Your task to perform on an android device: change the clock display to show seconds Image 0: 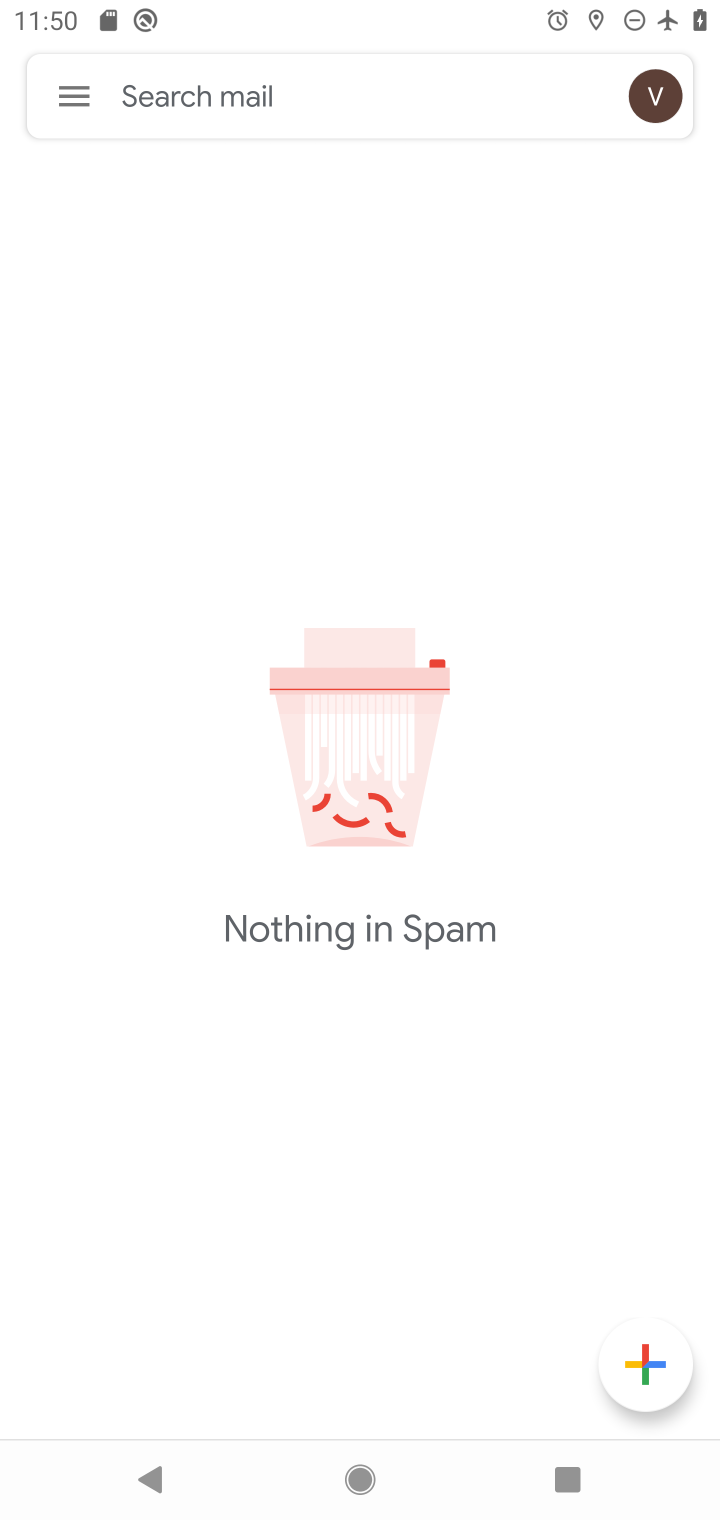
Step 0: press home button
Your task to perform on an android device: change the clock display to show seconds Image 1: 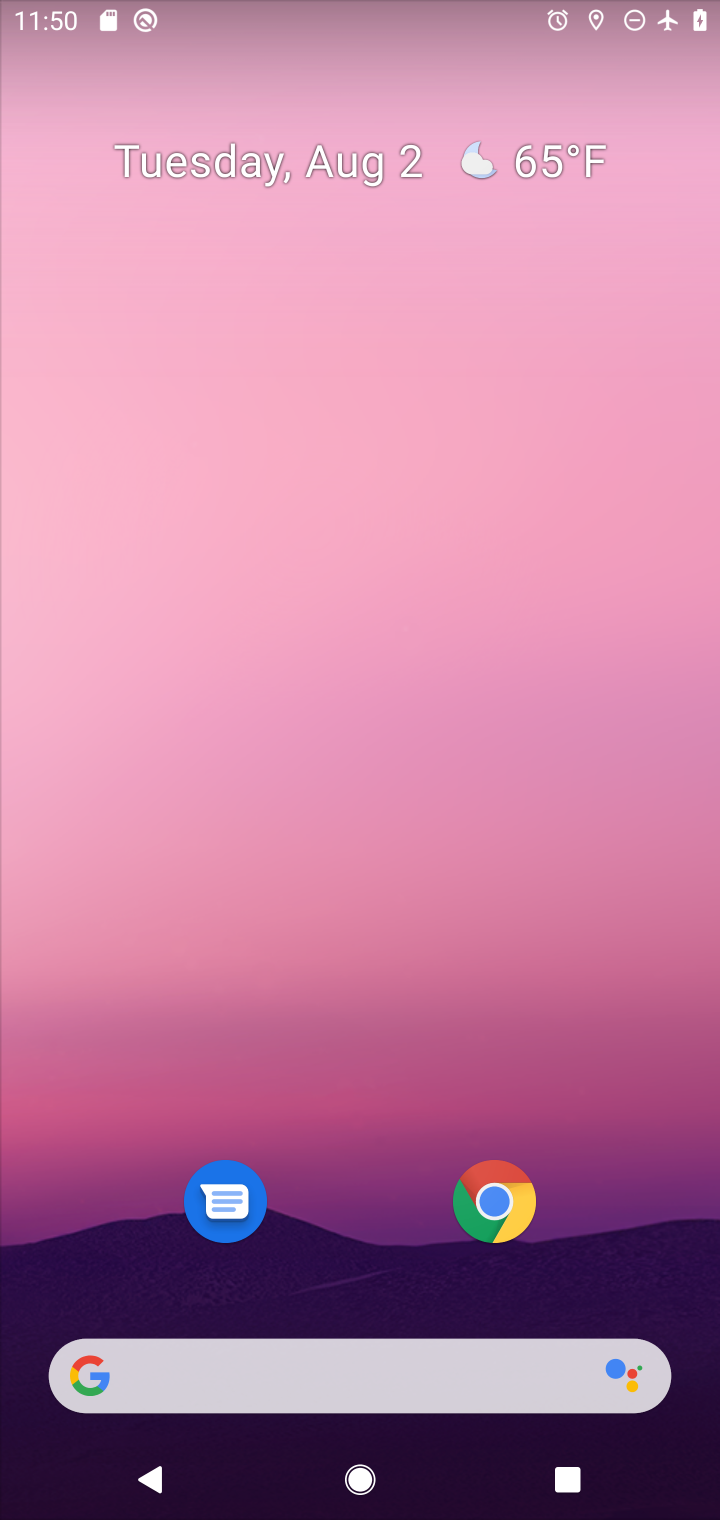
Step 1: drag from (425, 849) to (361, 124)
Your task to perform on an android device: change the clock display to show seconds Image 2: 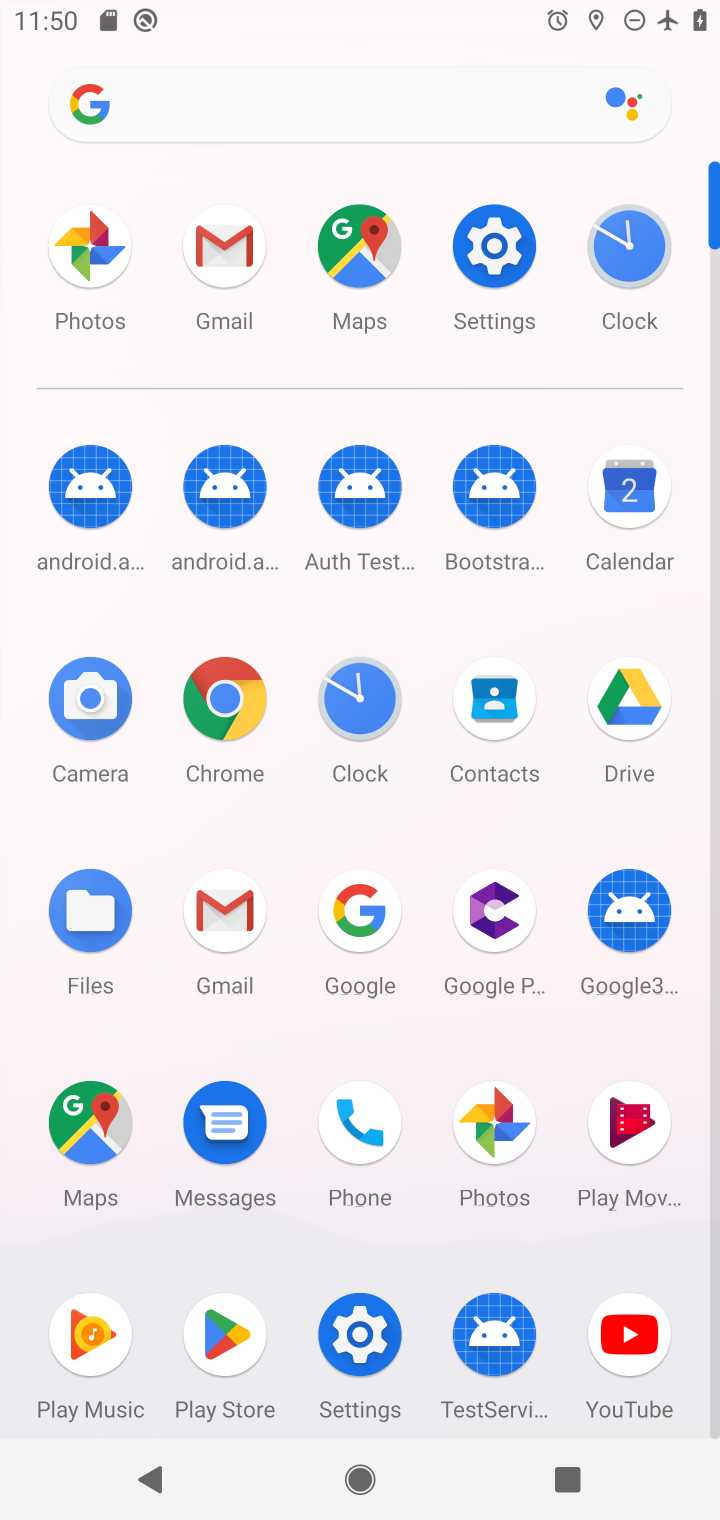
Step 2: click (376, 723)
Your task to perform on an android device: change the clock display to show seconds Image 3: 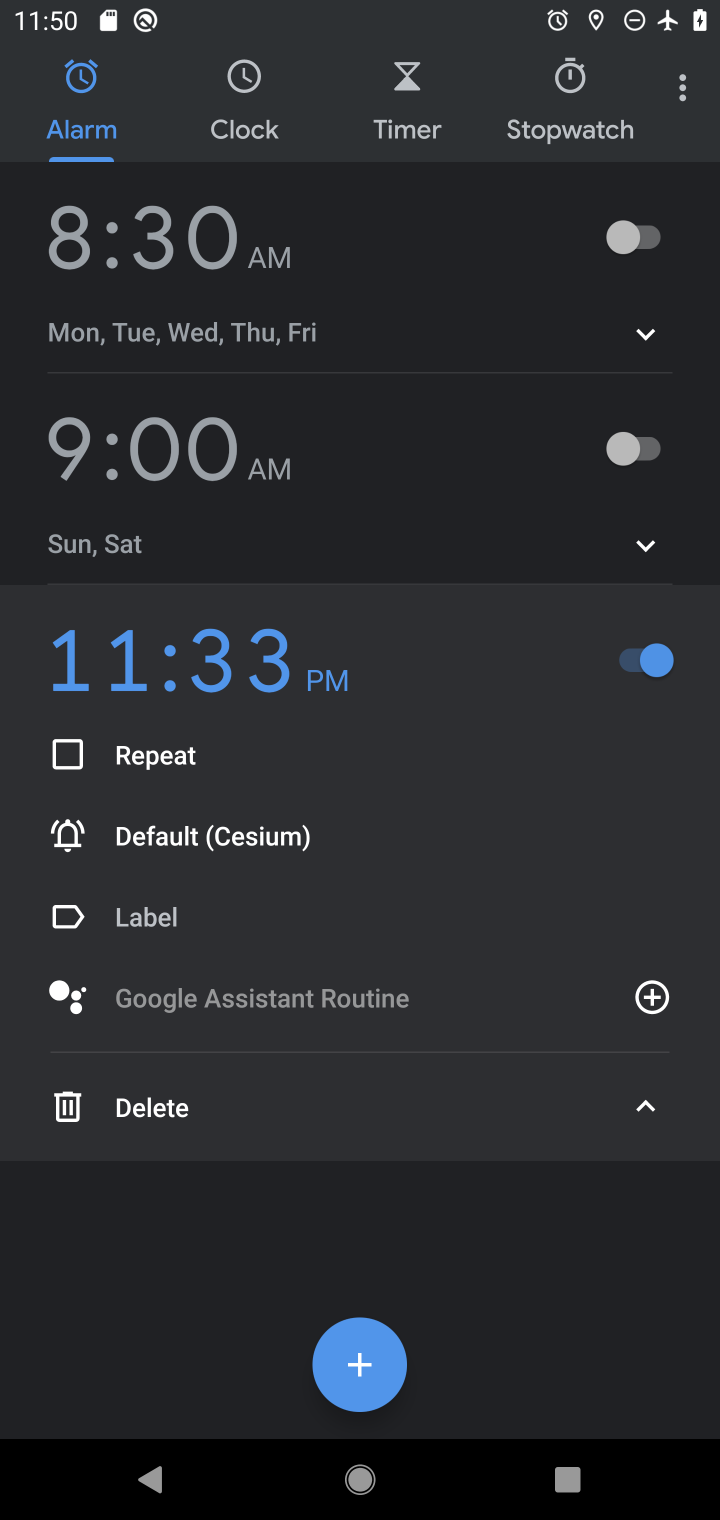
Step 3: click (689, 73)
Your task to perform on an android device: change the clock display to show seconds Image 4: 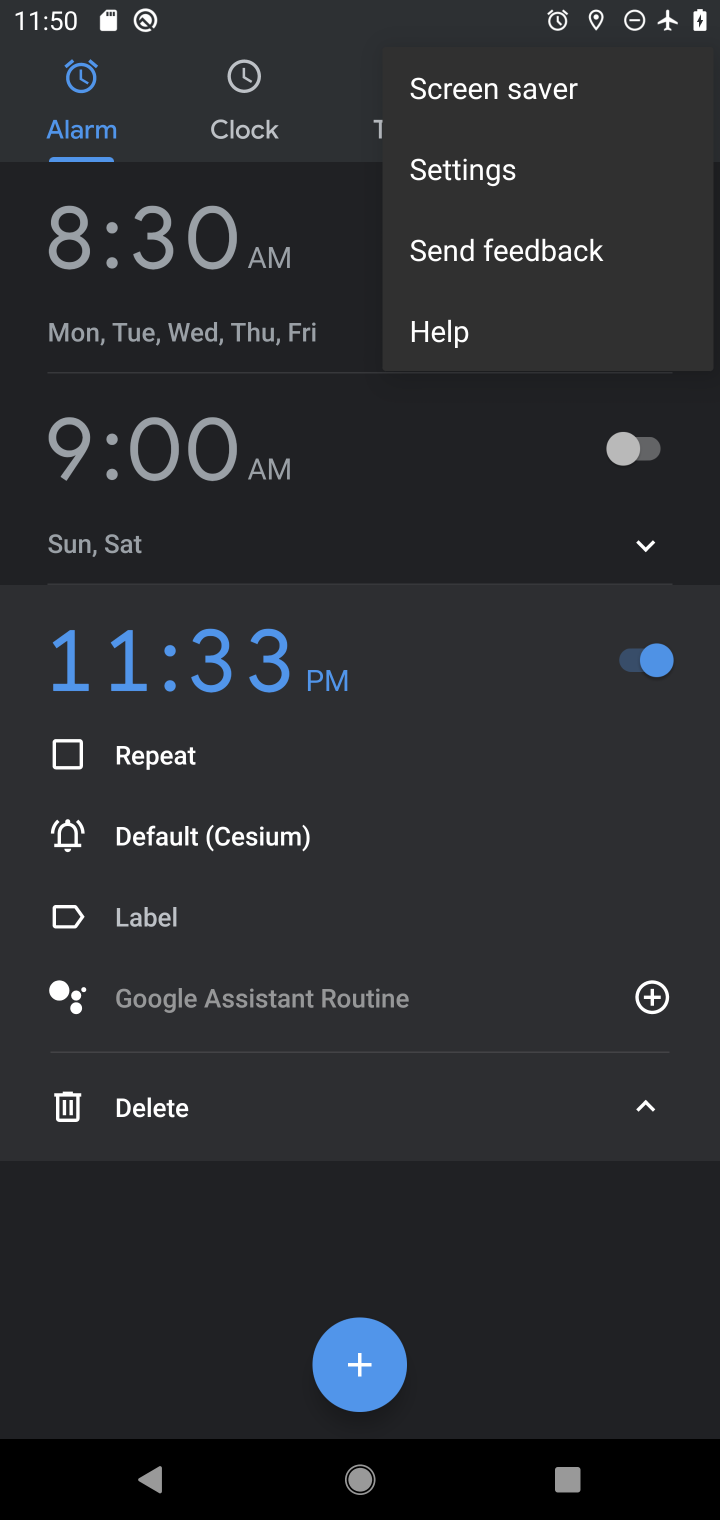
Step 4: click (504, 152)
Your task to perform on an android device: change the clock display to show seconds Image 5: 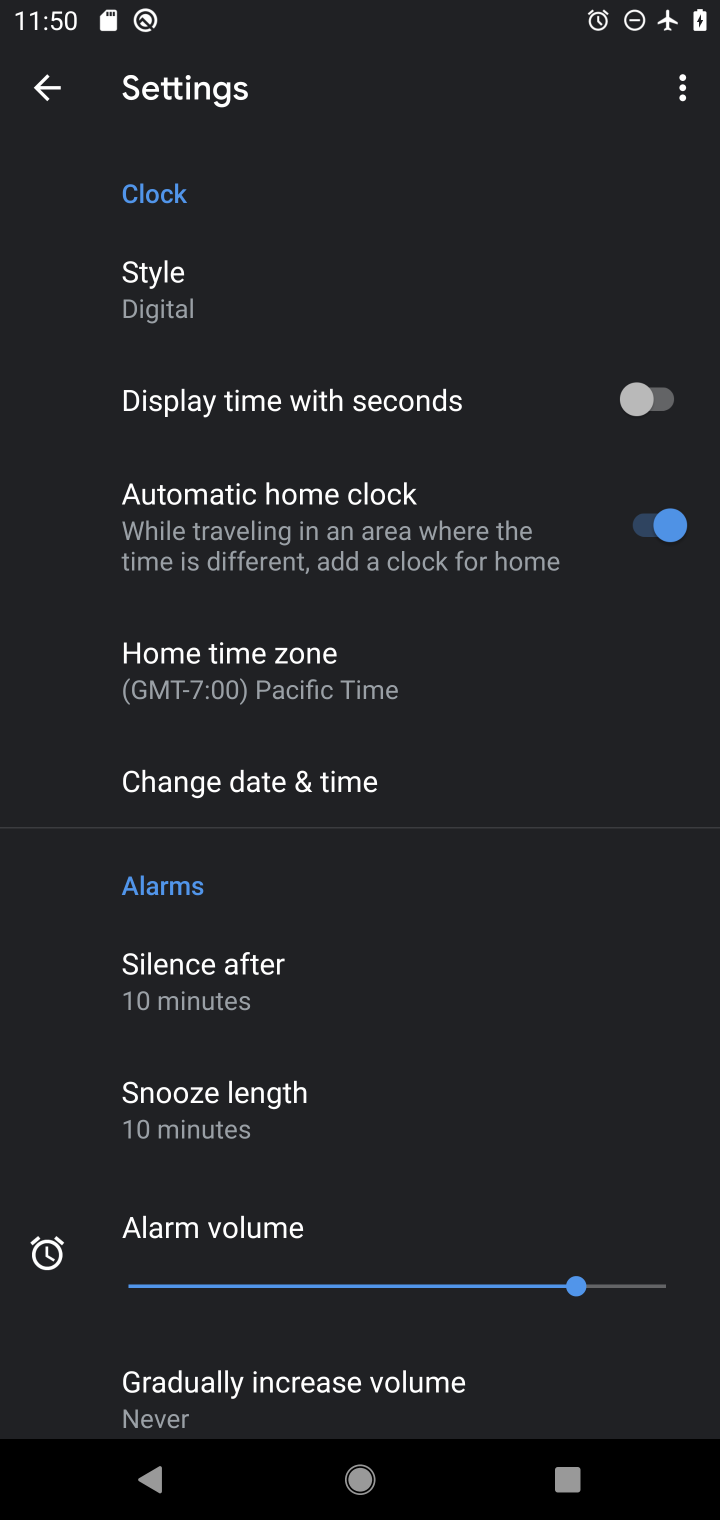
Step 5: click (650, 410)
Your task to perform on an android device: change the clock display to show seconds Image 6: 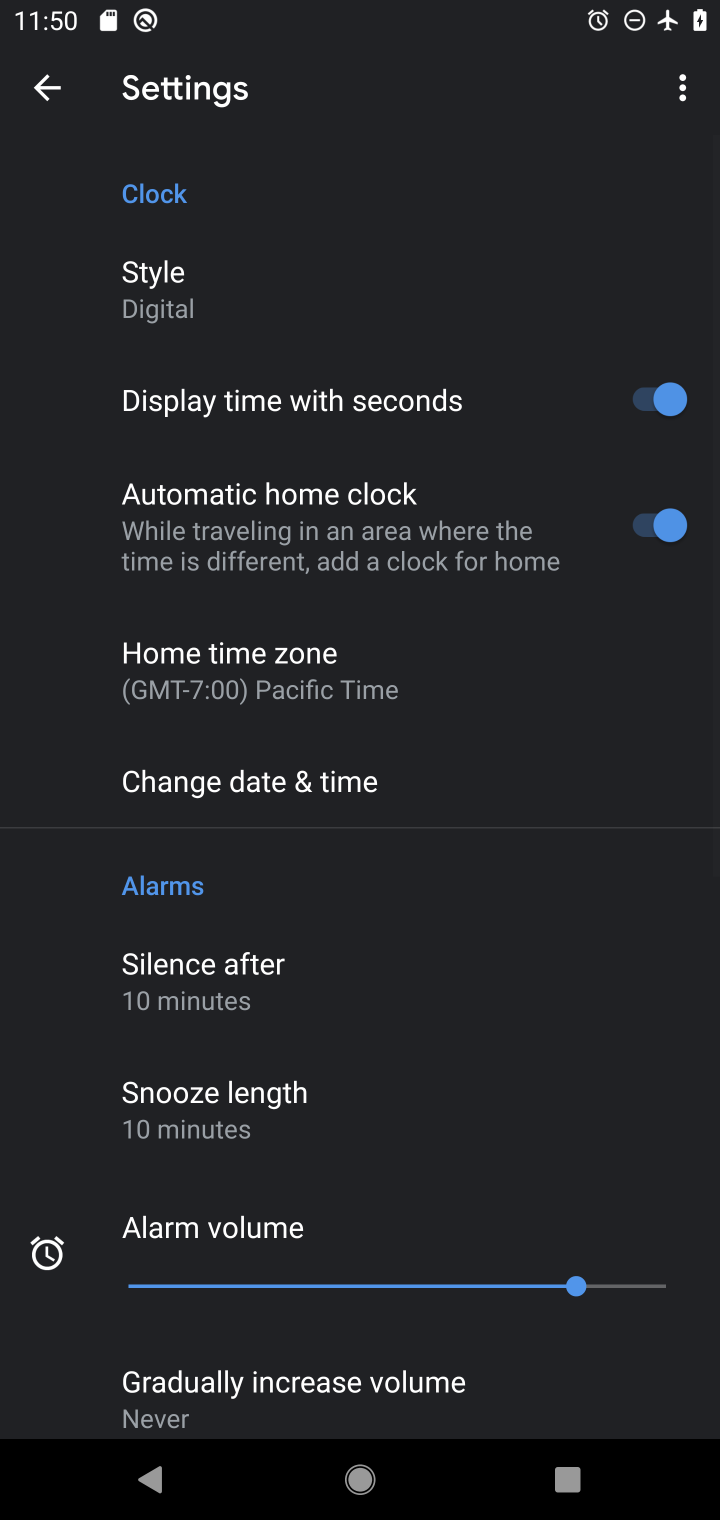
Step 6: task complete